Your task to perform on an android device: make emails show in primary in the gmail app Image 0: 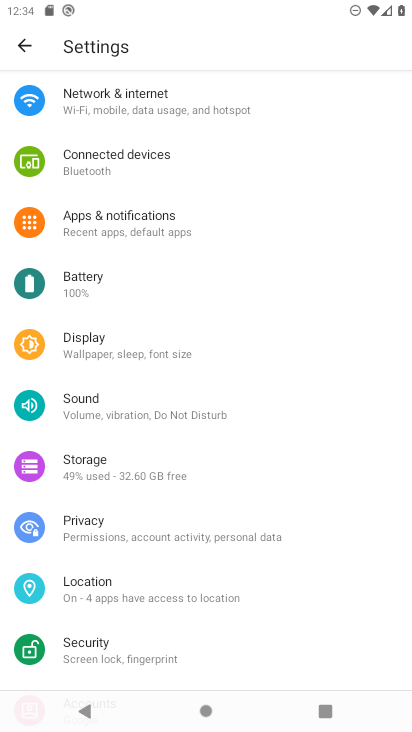
Step 0: press home button
Your task to perform on an android device: make emails show in primary in the gmail app Image 1: 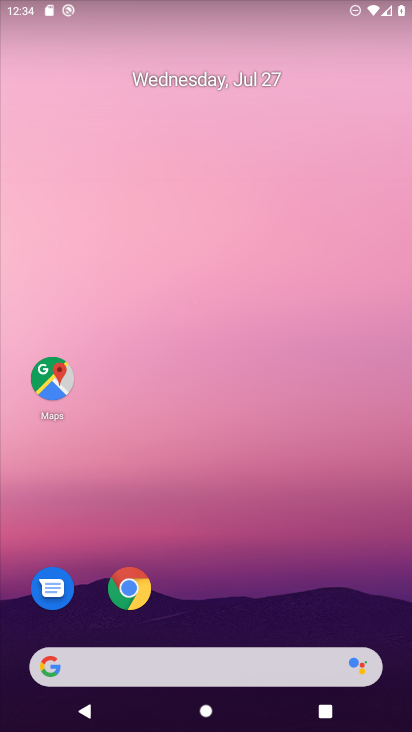
Step 1: drag from (78, 544) to (249, 7)
Your task to perform on an android device: make emails show in primary in the gmail app Image 2: 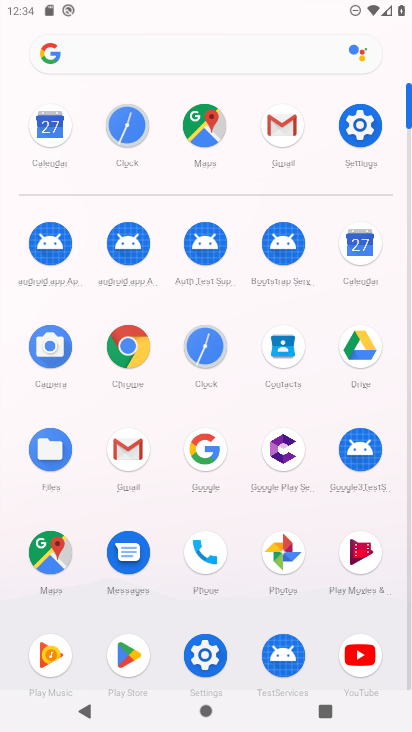
Step 2: click (289, 123)
Your task to perform on an android device: make emails show in primary in the gmail app Image 3: 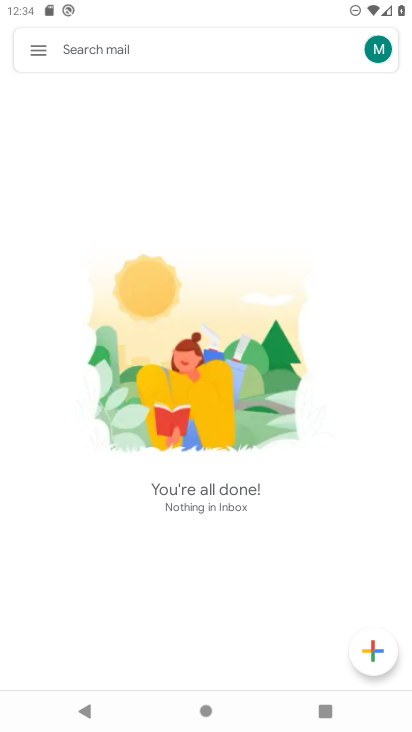
Step 3: click (39, 50)
Your task to perform on an android device: make emails show in primary in the gmail app Image 4: 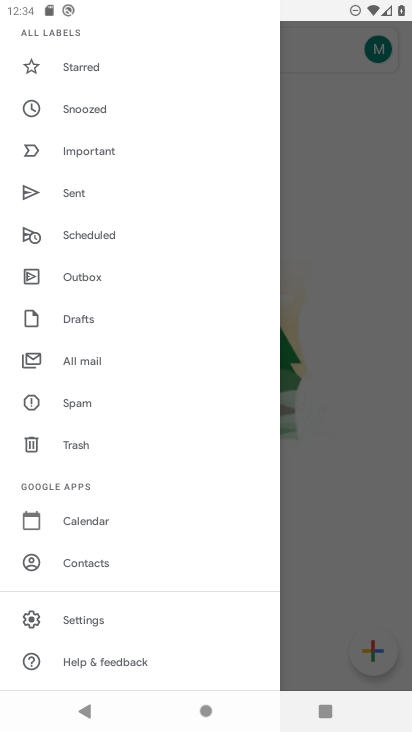
Step 4: drag from (186, 70) to (189, 515)
Your task to perform on an android device: make emails show in primary in the gmail app Image 5: 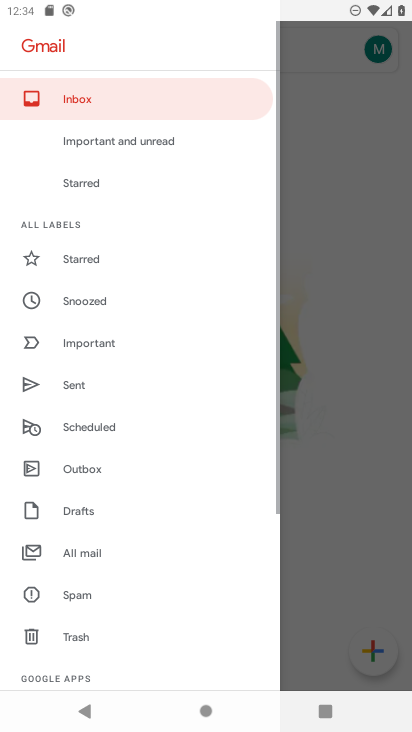
Step 5: click (152, 102)
Your task to perform on an android device: make emails show in primary in the gmail app Image 6: 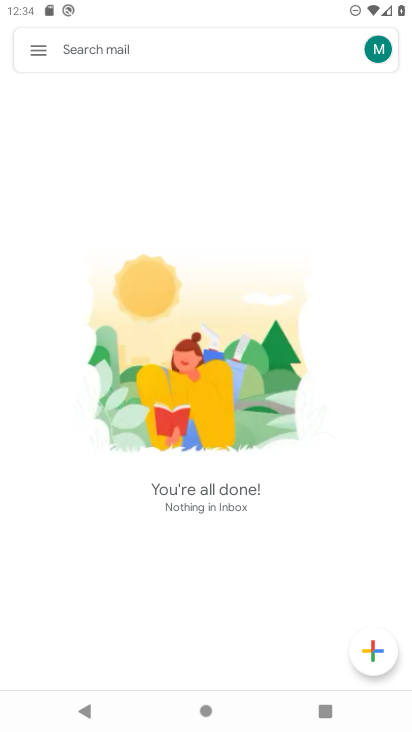
Step 6: task complete